Your task to perform on an android device: turn vacation reply on in the gmail app Image 0: 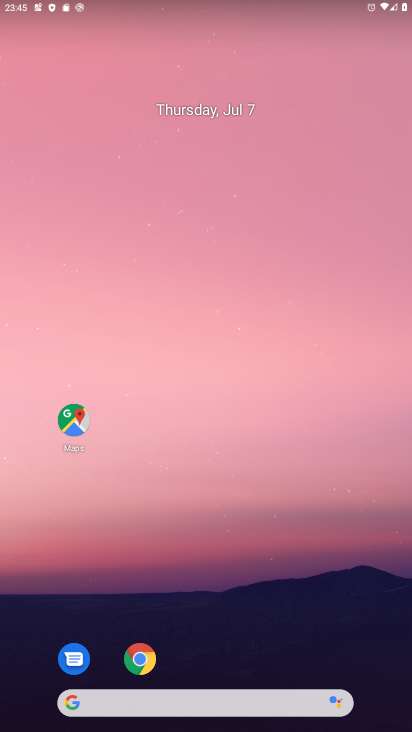
Step 0: drag from (210, 661) to (246, 101)
Your task to perform on an android device: turn vacation reply on in the gmail app Image 1: 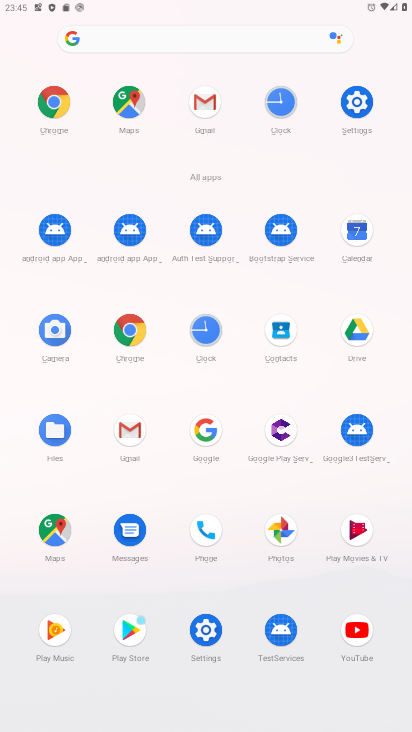
Step 1: click (206, 88)
Your task to perform on an android device: turn vacation reply on in the gmail app Image 2: 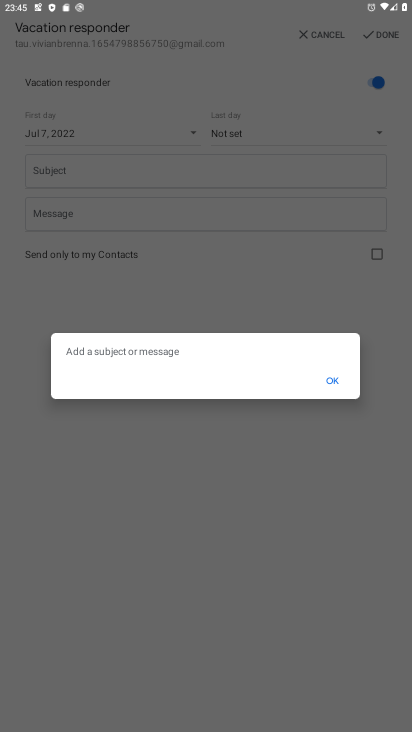
Step 2: click (342, 383)
Your task to perform on an android device: turn vacation reply on in the gmail app Image 3: 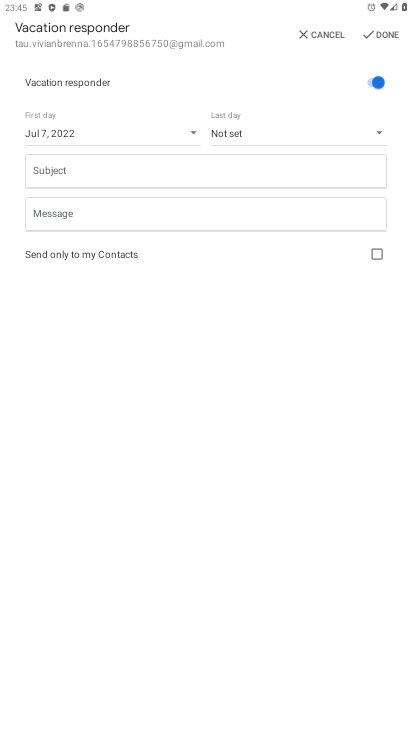
Step 3: task complete